Your task to perform on an android device: change timer sound Image 0: 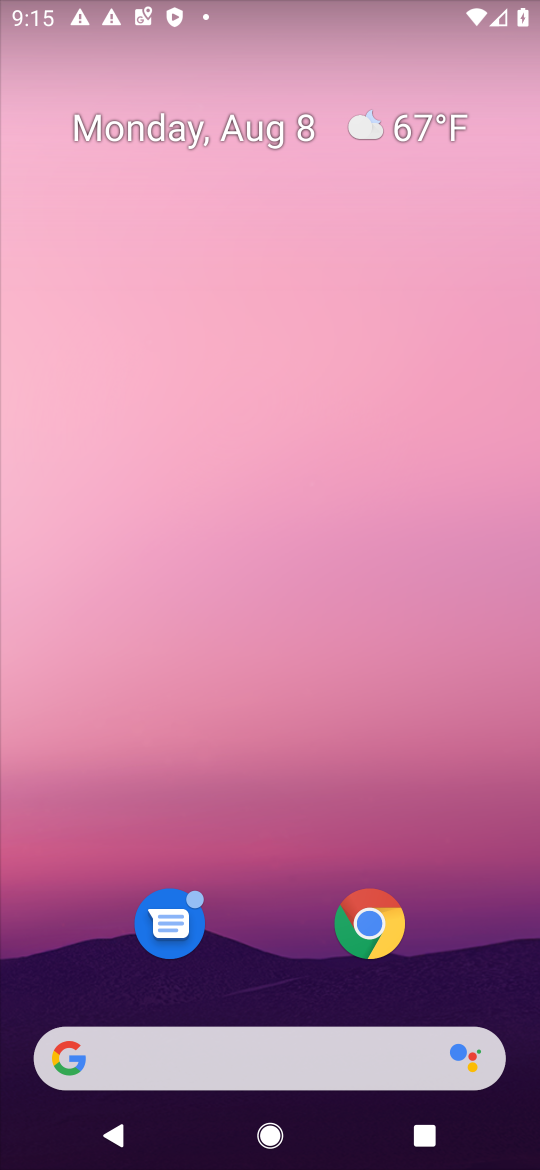
Step 0: drag from (57, 1116) to (255, 600)
Your task to perform on an android device: change timer sound Image 1: 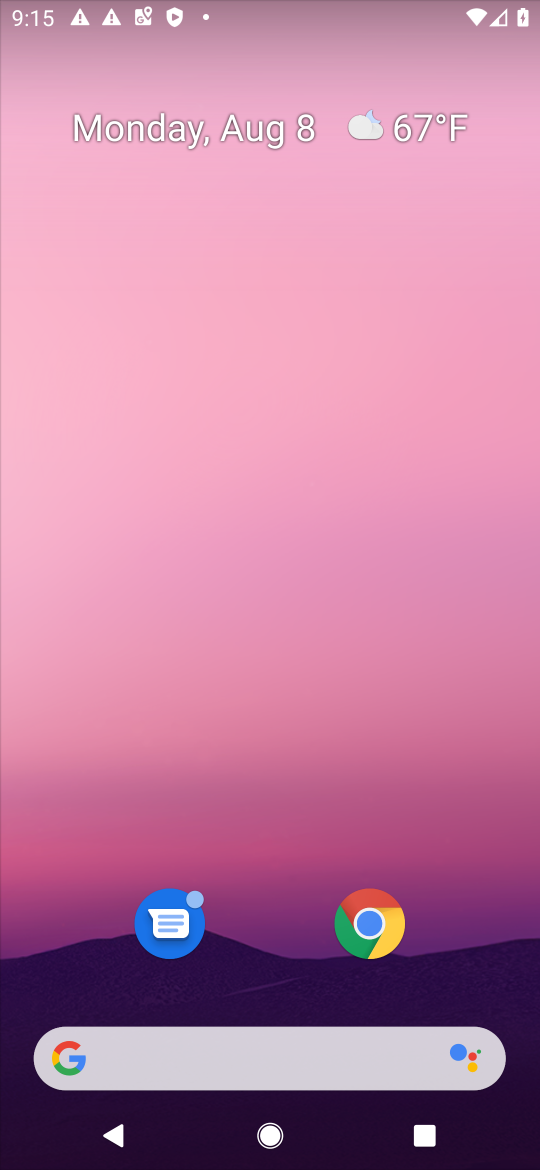
Step 1: drag from (56, 1113) to (179, 473)
Your task to perform on an android device: change timer sound Image 2: 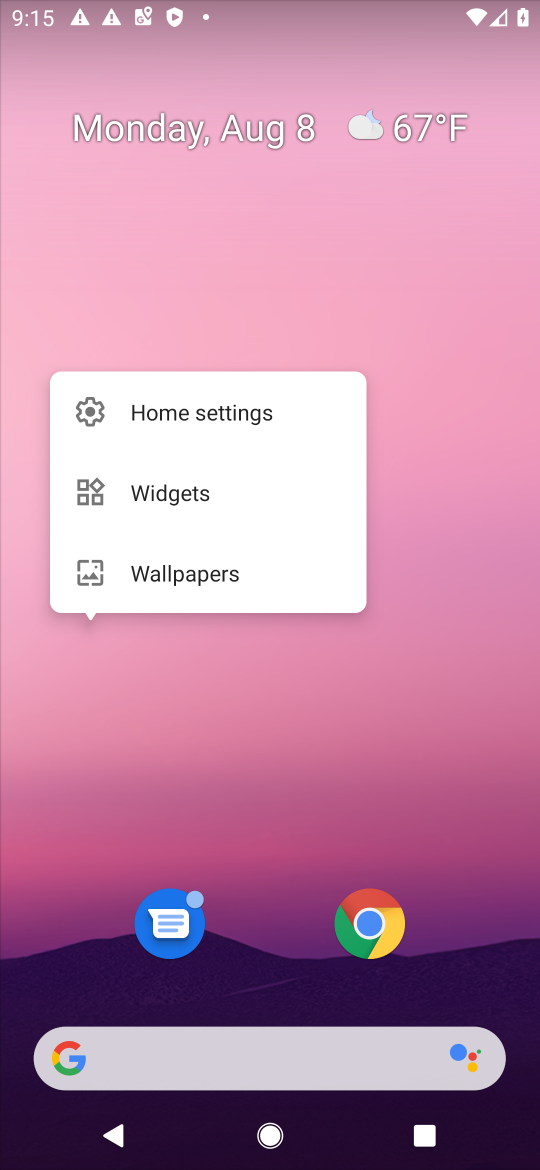
Step 2: click (37, 1131)
Your task to perform on an android device: change timer sound Image 3: 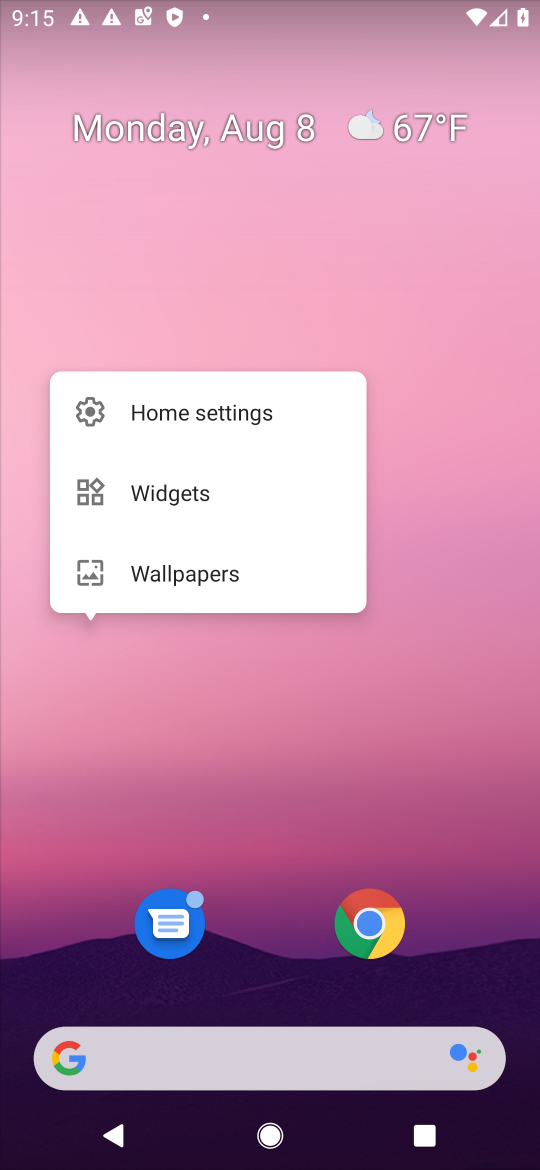
Step 3: task complete